Your task to perform on an android device: turn smart compose on in the gmail app Image 0: 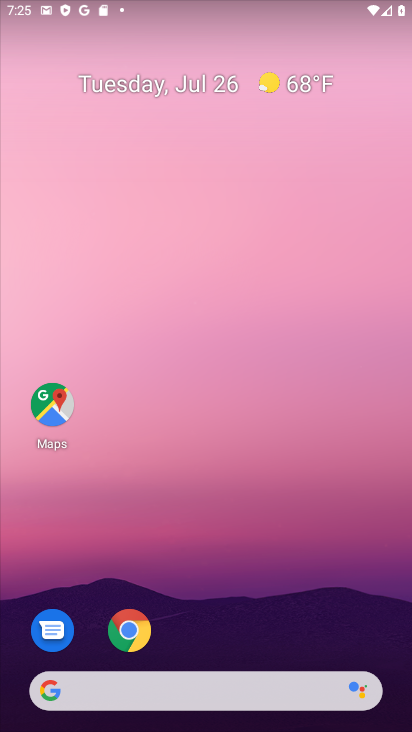
Step 0: press home button
Your task to perform on an android device: turn smart compose on in the gmail app Image 1: 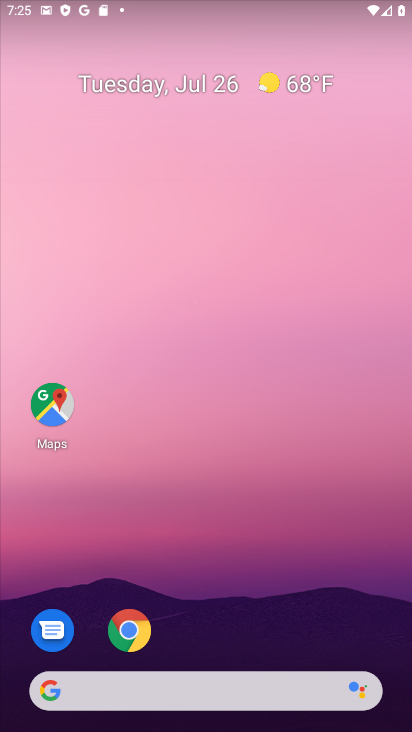
Step 1: drag from (349, 584) to (375, 90)
Your task to perform on an android device: turn smart compose on in the gmail app Image 2: 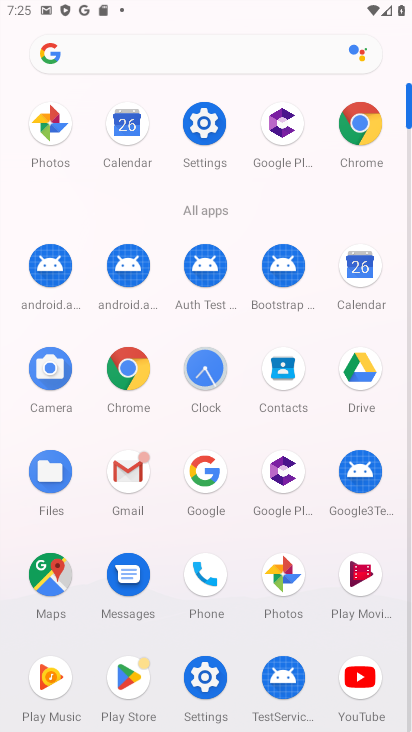
Step 2: click (123, 477)
Your task to perform on an android device: turn smart compose on in the gmail app Image 3: 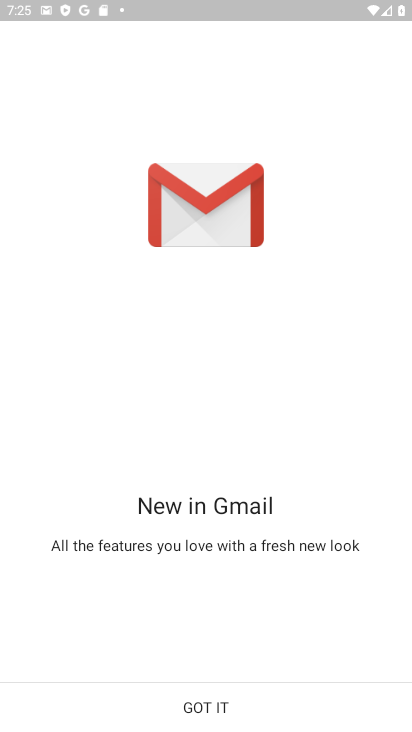
Step 3: click (204, 705)
Your task to perform on an android device: turn smart compose on in the gmail app Image 4: 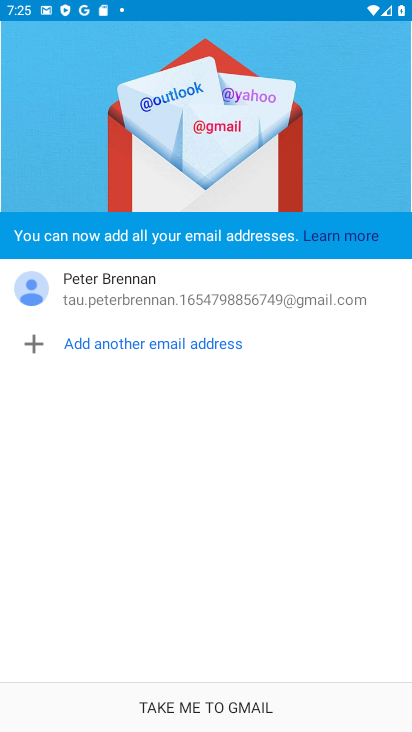
Step 4: click (204, 705)
Your task to perform on an android device: turn smart compose on in the gmail app Image 5: 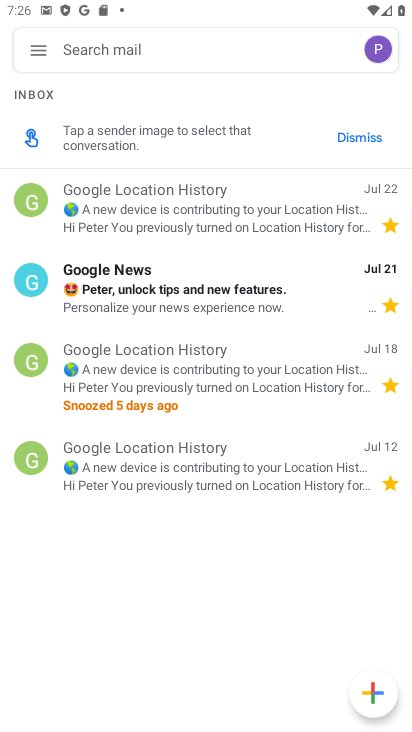
Step 5: click (39, 51)
Your task to perform on an android device: turn smart compose on in the gmail app Image 6: 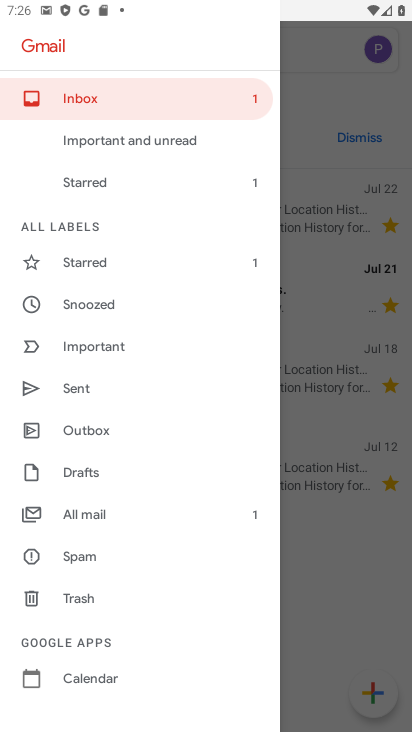
Step 6: drag from (182, 488) to (194, 435)
Your task to perform on an android device: turn smart compose on in the gmail app Image 7: 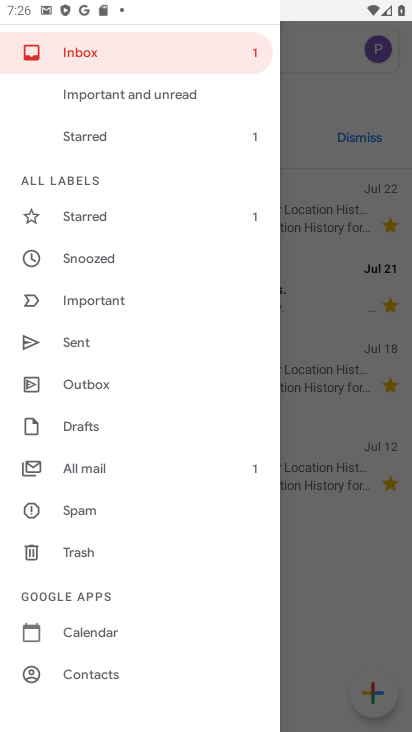
Step 7: drag from (190, 540) to (195, 464)
Your task to perform on an android device: turn smart compose on in the gmail app Image 8: 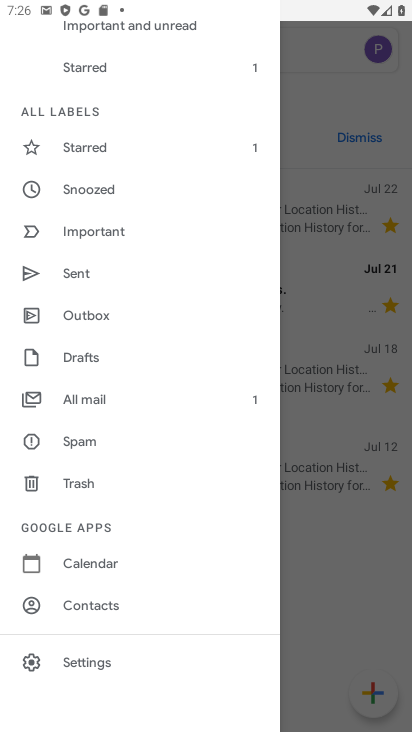
Step 8: drag from (187, 565) to (192, 405)
Your task to perform on an android device: turn smart compose on in the gmail app Image 9: 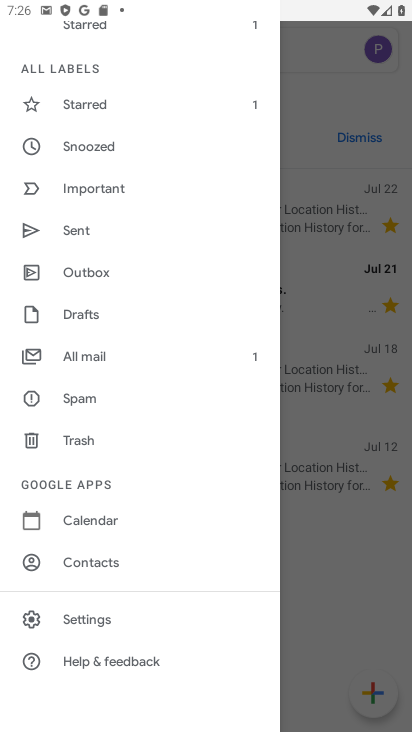
Step 9: click (150, 622)
Your task to perform on an android device: turn smart compose on in the gmail app Image 10: 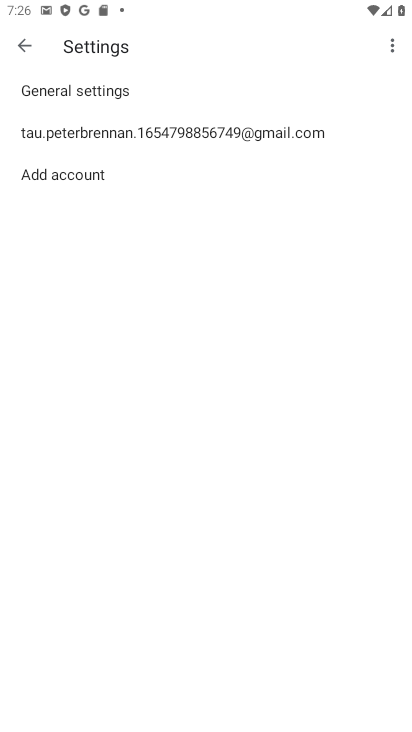
Step 10: click (289, 142)
Your task to perform on an android device: turn smart compose on in the gmail app Image 11: 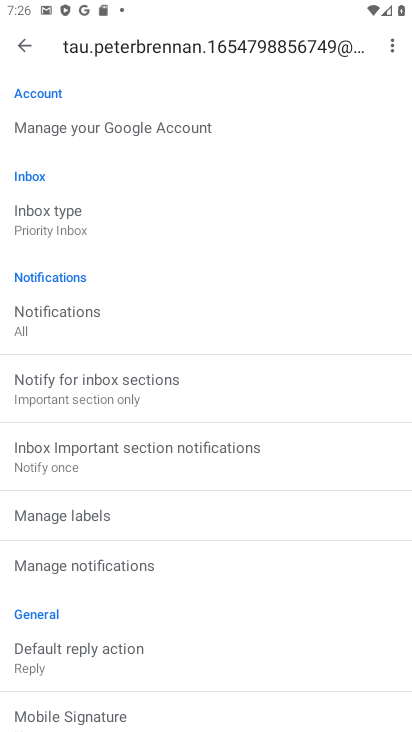
Step 11: task complete